Your task to perform on an android device: empty trash in google photos Image 0: 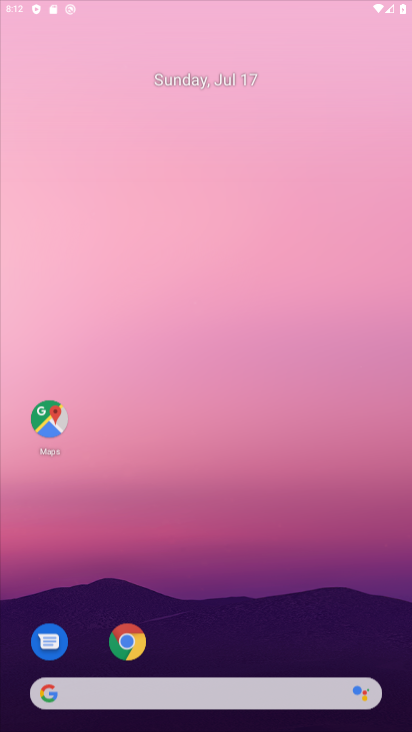
Step 0: click (243, 174)
Your task to perform on an android device: empty trash in google photos Image 1: 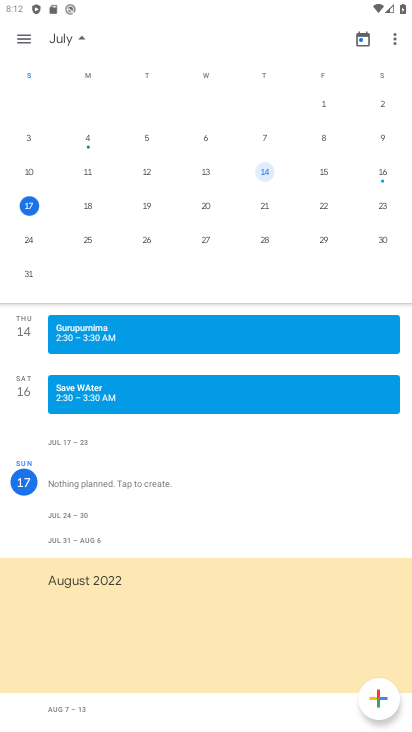
Step 1: press home button
Your task to perform on an android device: empty trash in google photos Image 2: 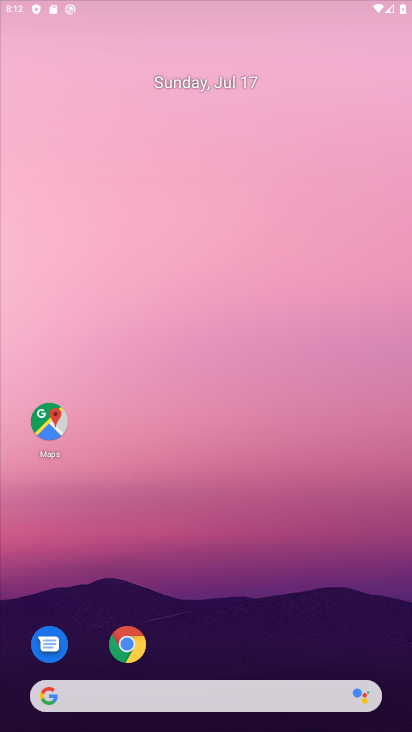
Step 2: drag from (222, 643) to (241, 73)
Your task to perform on an android device: empty trash in google photos Image 3: 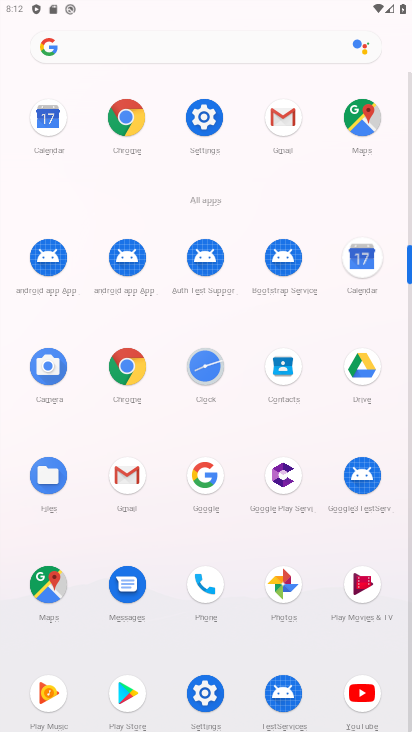
Step 3: click (277, 583)
Your task to perform on an android device: empty trash in google photos Image 4: 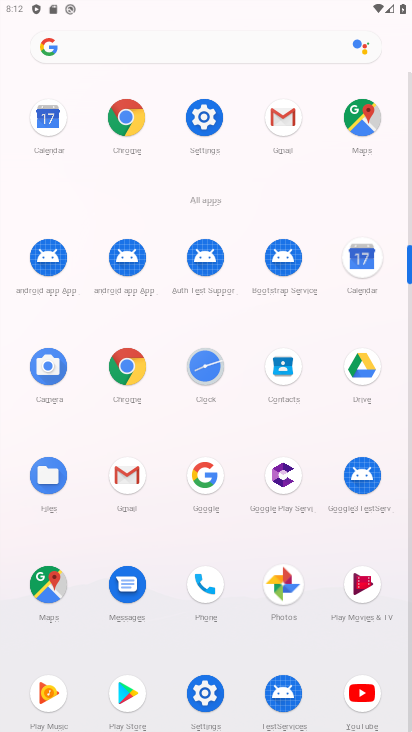
Step 4: click (277, 583)
Your task to perform on an android device: empty trash in google photos Image 5: 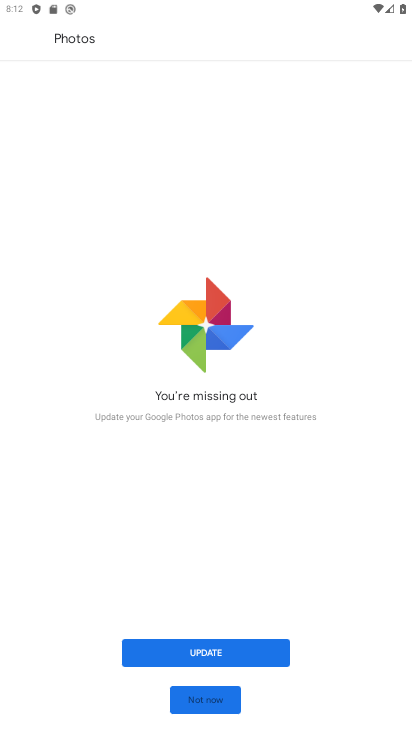
Step 5: click (108, 612)
Your task to perform on an android device: empty trash in google photos Image 6: 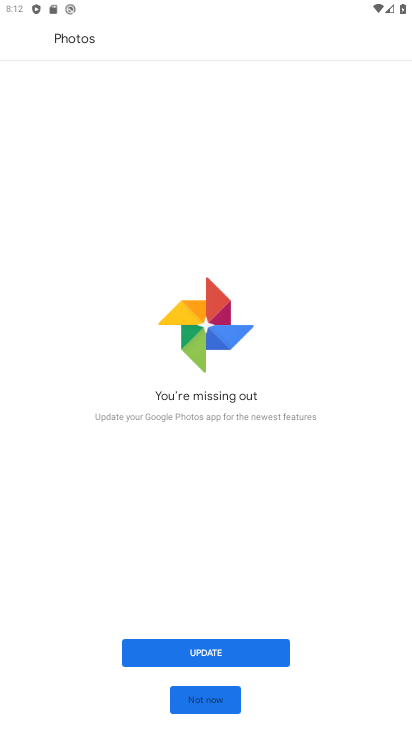
Step 6: click (191, 715)
Your task to perform on an android device: empty trash in google photos Image 7: 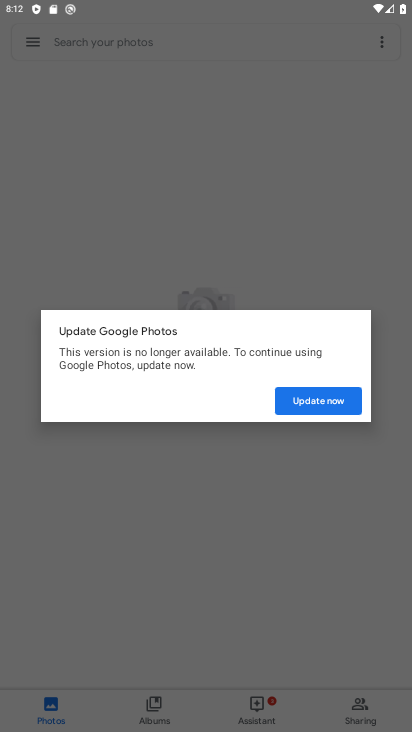
Step 7: click (328, 397)
Your task to perform on an android device: empty trash in google photos Image 8: 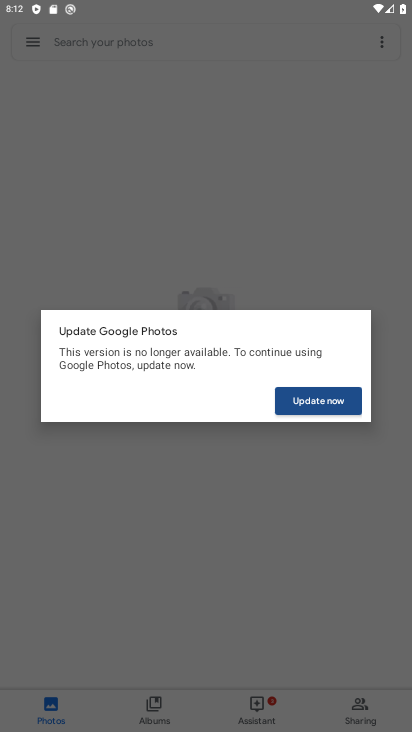
Step 8: click (328, 397)
Your task to perform on an android device: empty trash in google photos Image 9: 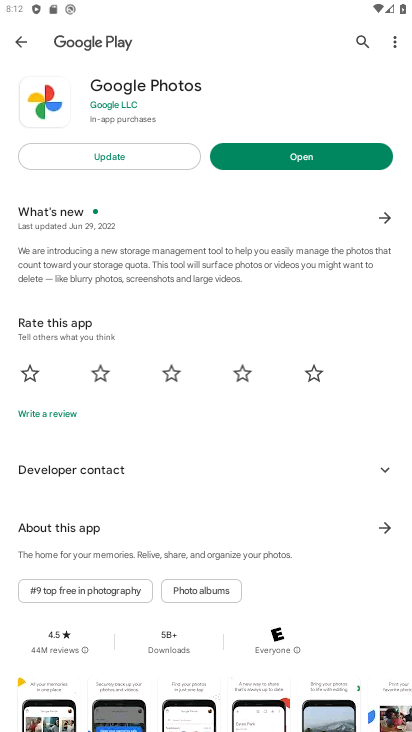
Step 9: click (105, 155)
Your task to perform on an android device: empty trash in google photos Image 10: 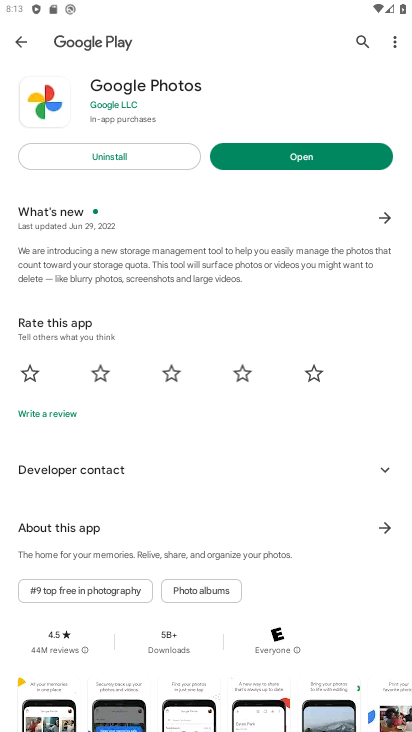
Step 10: click (333, 152)
Your task to perform on an android device: empty trash in google photos Image 11: 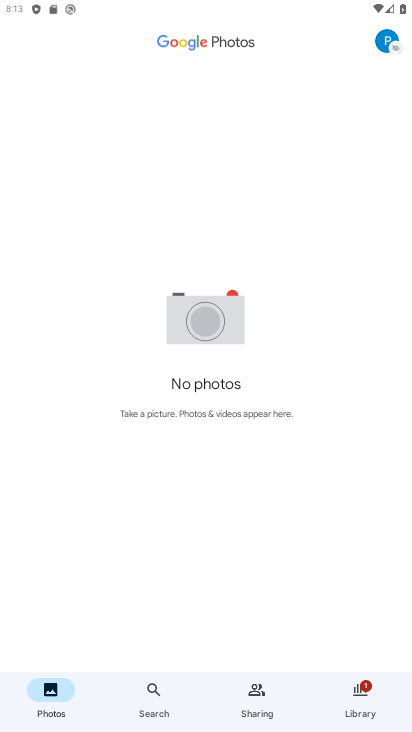
Step 11: task complete